Your task to perform on an android device: open app "eBay: The shopping marketplace" (install if not already installed) and go to login screen Image 0: 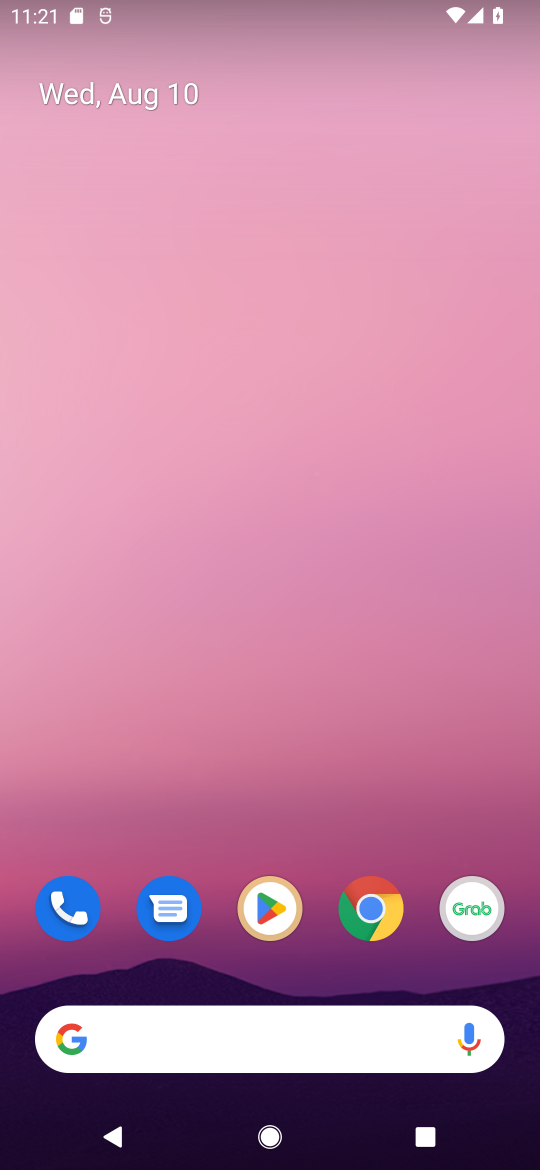
Step 0: click (283, 897)
Your task to perform on an android device: open app "eBay: The shopping marketplace" (install if not already installed) and go to login screen Image 1: 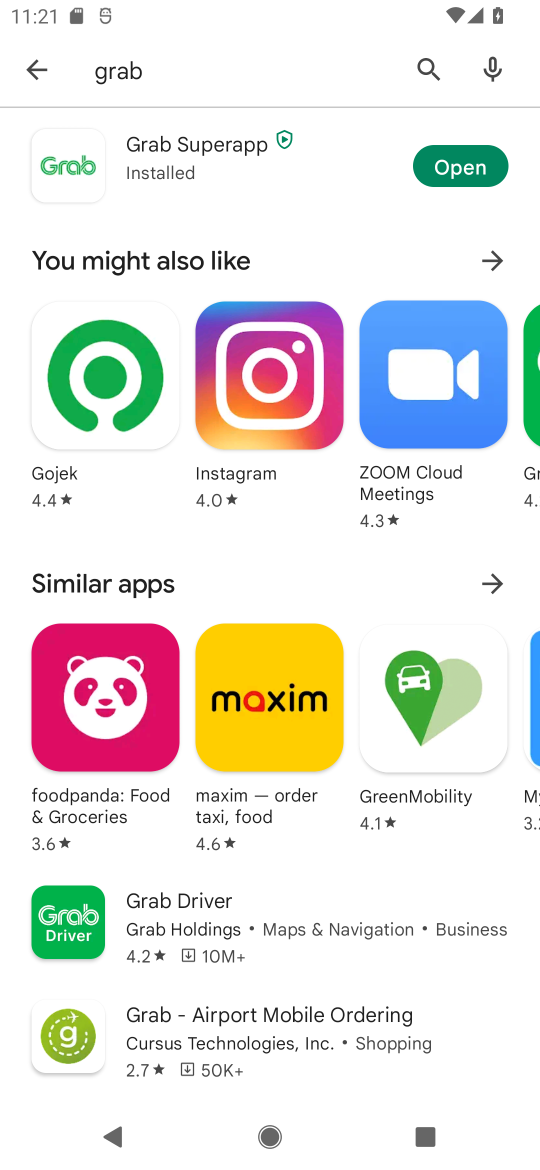
Step 1: click (409, 65)
Your task to perform on an android device: open app "eBay: The shopping marketplace" (install if not already installed) and go to login screen Image 2: 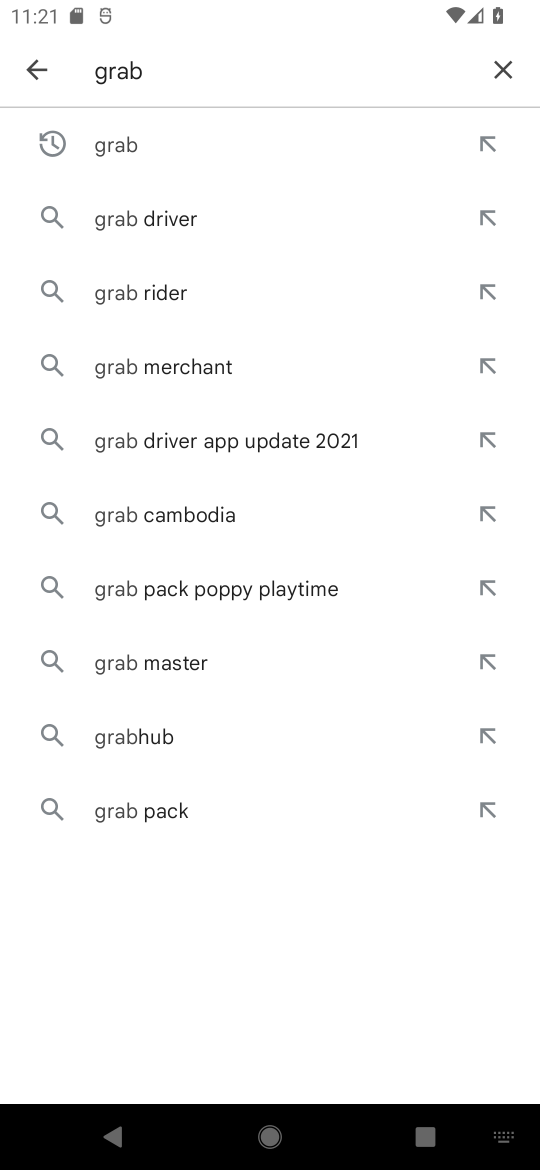
Step 2: click (504, 70)
Your task to perform on an android device: open app "eBay: The shopping marketplace" (install if not already installed) and go to login screen Image 3: 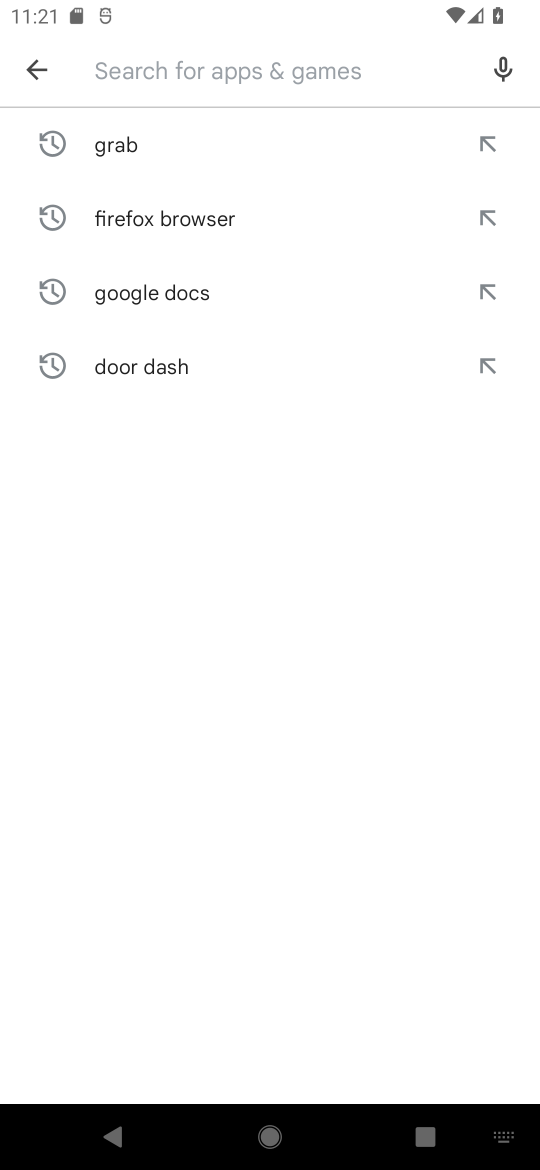
Step 3: type "ebay"
Your task to perform on an android device: open app "eBay: The shopping marketplace" (install if not already installed) and go to login screen Image 4: 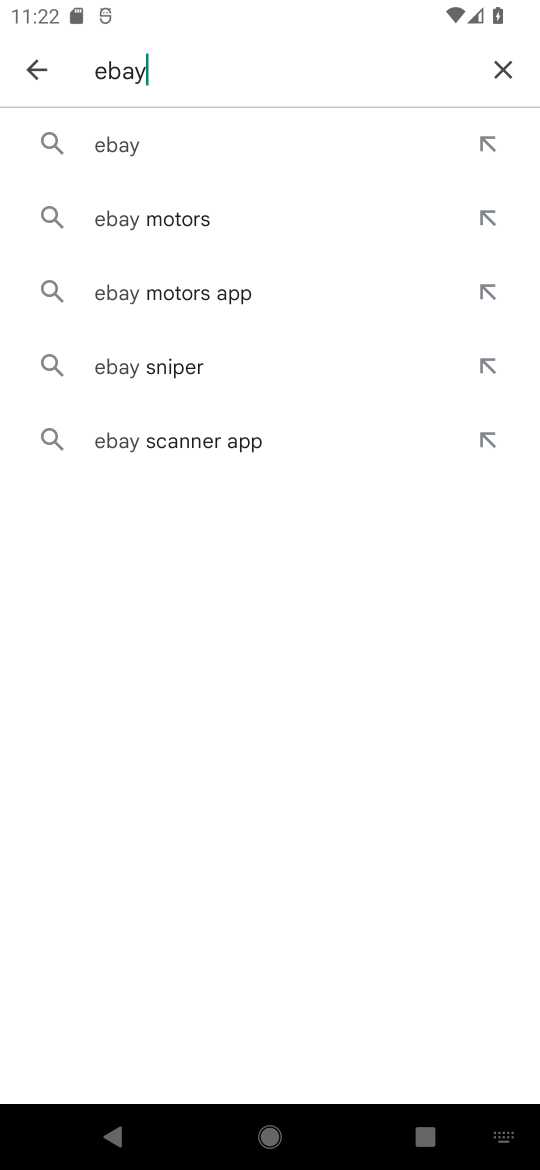
Step 4: click (158, 129)
Your task to perform on an android device: open app "eBay: The shopping marketplace" (install if not already installed) and go to login screen Image 5: 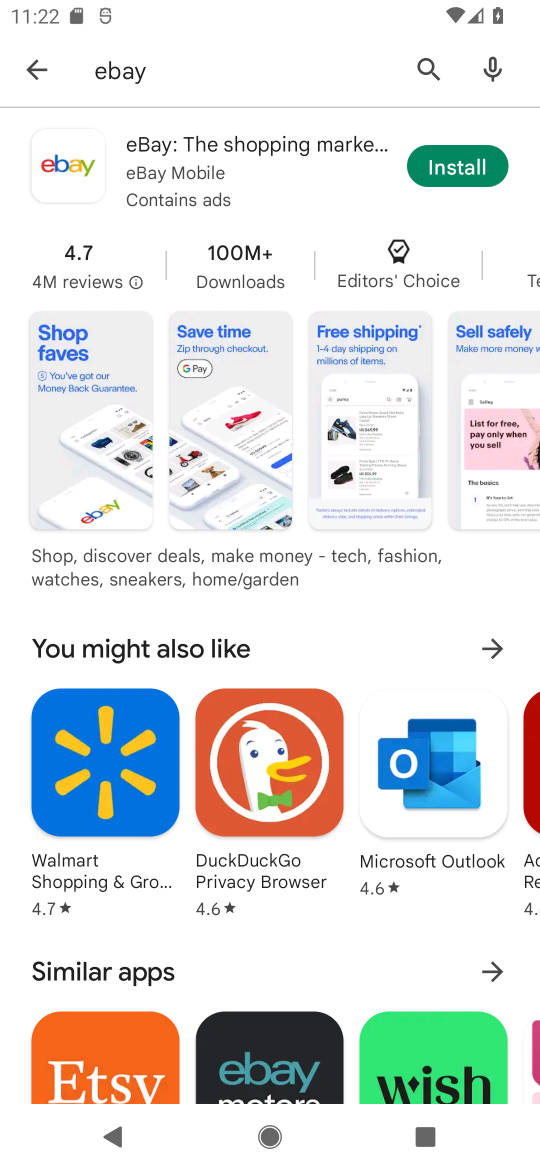
Step 5: click (480, 165)
Your task to perform on an android device: open app "eBay: The shopping marketplace" (install if not already installed) and go to login screen Image 6: 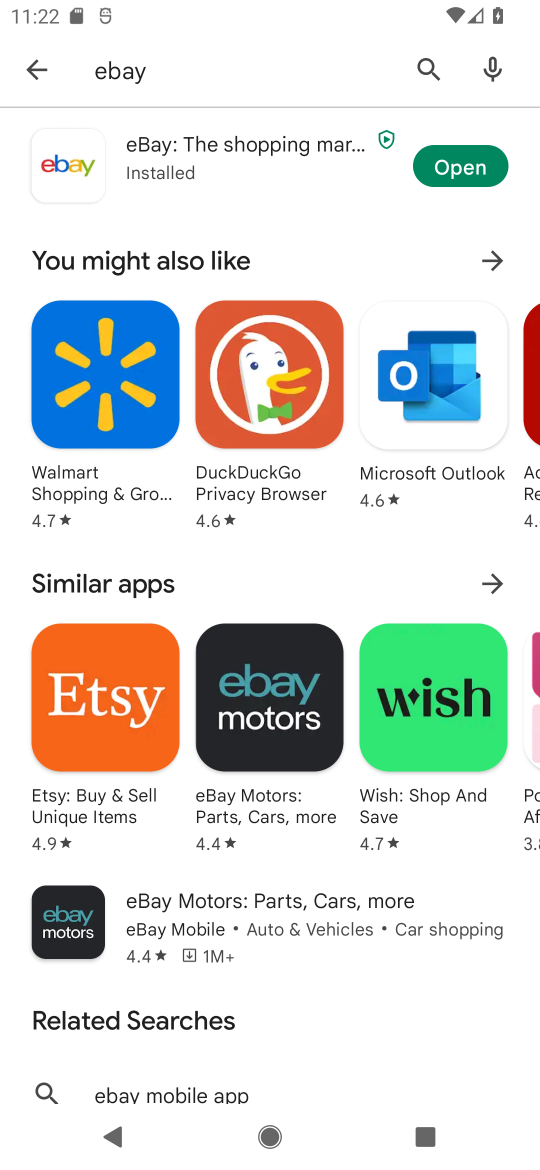
Step 6: click (437, 171)
Your task to perform on an android device: open app "eBay: The shopping marketplace" (install if not already installed) and go to login screen Image 7: 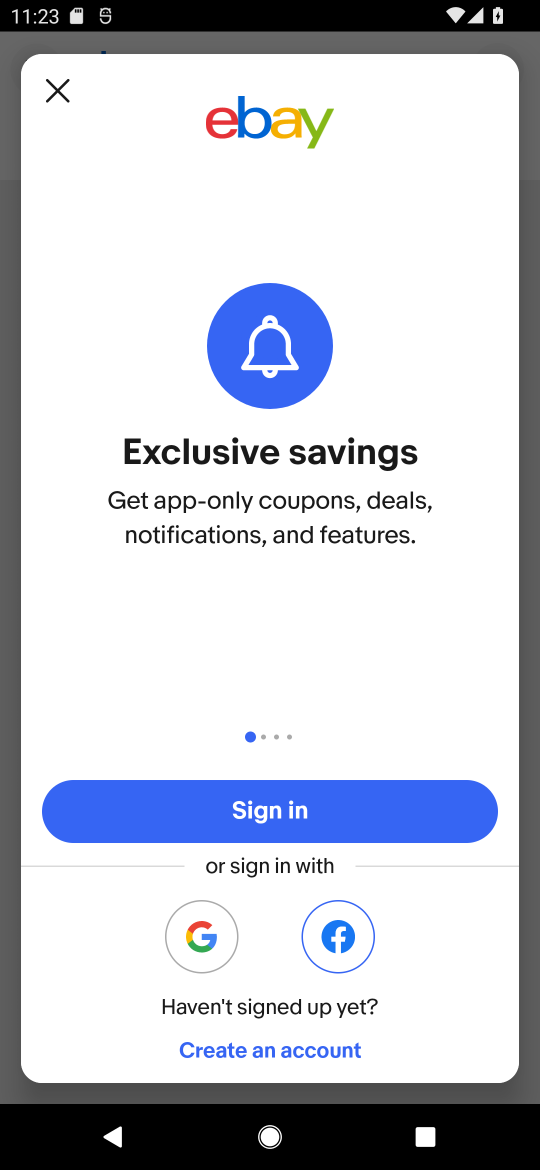
Step 7: task complete